Your task to perform on an android device: open app "Reddit" (install if not already installed) and enter user name: "issues@yahoo.com" and password: "belt" Image 0: 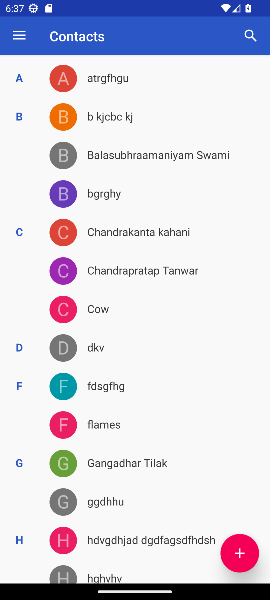
Step 0: press home button
Your task to perform on an android device: open app "Reddit" (install if not already installed) and enter user name: "issues@yahoo.com" and password: "belt" Image 1: 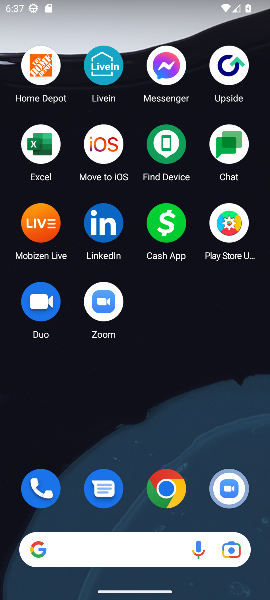
Step 1: drag from (129, 487) to (145, 237)
Your task to perform on an android device: open app "Reddit" (install if not already installed) and enter user name: "issues@yahoo.com" and password: "belt" Image 2: 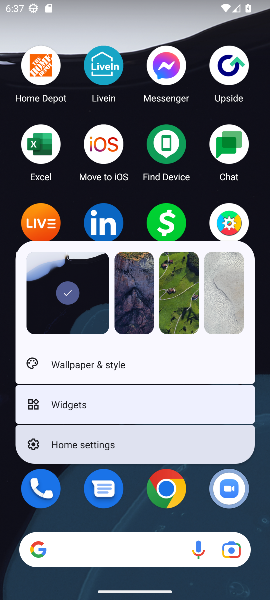
Step 2: click (135, 282)
Your task to perform on an android device: open app "Reddit" (install if not already installed) and enter user name: "issues@yahoo.com" and password: "belt" Image 3: 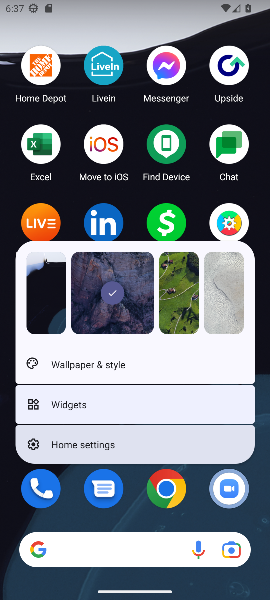
Step 3: press home button
Your task to perform on an android device: open app "Reddit" (install if not already installed) and enter user name: "issues@yahoo.com" and password: "belt" Image 4: 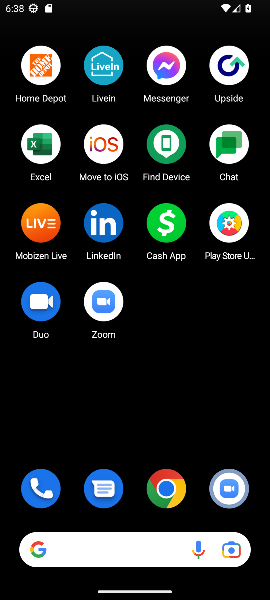
Step 4: click (134, 506)
Your task to perform on an android device: open app "Reddit" (install if not already installed) and enter user name: "issues@yahoo.com" and password: "belt" Image 5: 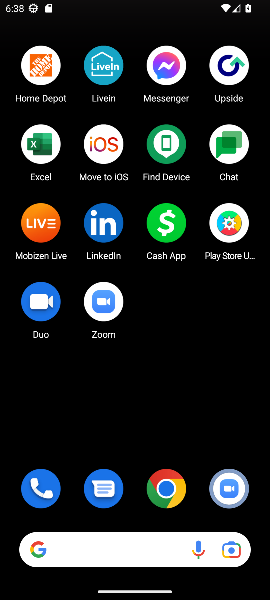
Step 5: click (134, 506)
Your task to perform on an android device: open app "Reddit" (install if not already installed) and enter user name: "issues@yahoo.com" and password: "belt" Image 6: 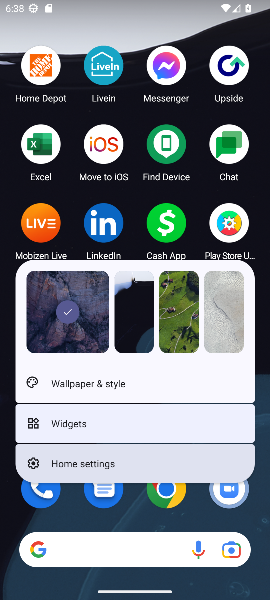
Step 6: click (129, 499)
Your task to perform on an android device: open app "Reddit" (install if not already installed) and enter user name: "issues@yahoo.com" and password: "belt" Image 7: 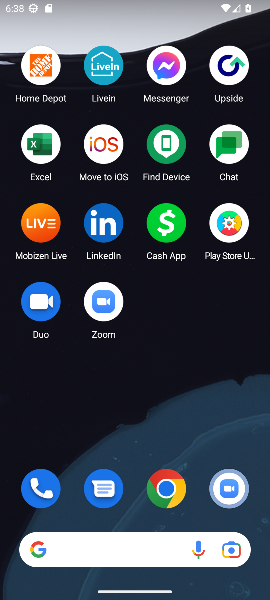
Step 7: drag from (129, 499) to (128, 87)
Your task to perform on an android device: open app "Reddit" (install if not already installed) and enter user name: "issues@yahoo.com" and password: "belt" Image 8: 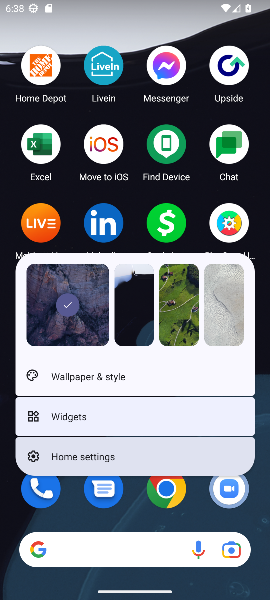
Step 8: click (138, 515)
Your task to perform on an android device: open app "Reddit" (install if not already installed) and enter user name: "issues@yahoo.com" and password: "belt" Image 9: 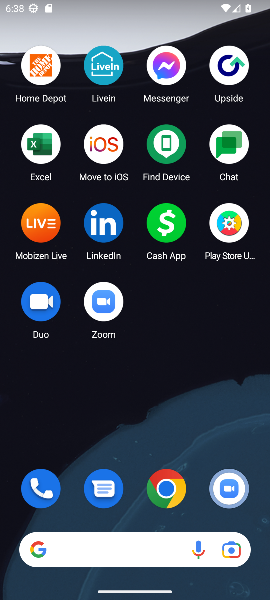
Step 9: drag from (157, 442) to (159, 89)
Your task to perform on an android device: open app "Reddit" (install if not already installed) and enter user name: "issues@yahoo.com" and password: "belt" Image 10: 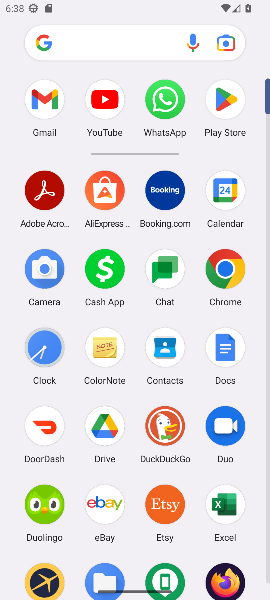
Step 10: click (227, 112)
Your task to perform on an android device: open app "Reddit" (install if not already installed) and enter user name: "issues@yahoo.com" and password: "belt" Image 11: 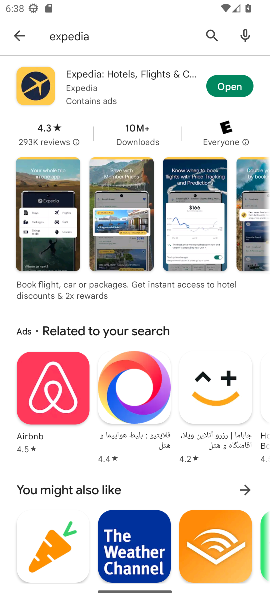
Step 11: click (216, 40)
Your task to perform on an android device: open app "Reddit" (install if not already installed) and enter user name: "issues@yahoo.com" and password: "belt" Image 12: 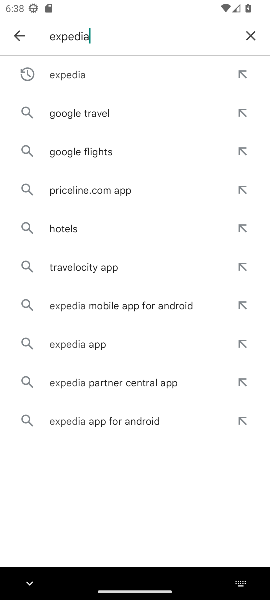
Step 12: click (253, 40)
Your task to perform on an android device: open app "Reddit" (install if not already installed) and enter user name: "issues@yahoo.com" and password: "belt" Image 13: 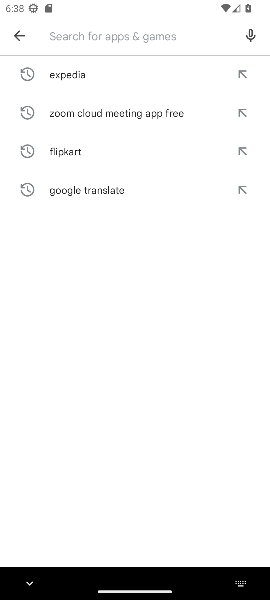
Step 13: type "reddit"
Your task to perform on an android device: open app "Reddit" (install if not already installed) and enter user name: "issues@yahoo.com" and password: "belt" Image 14: 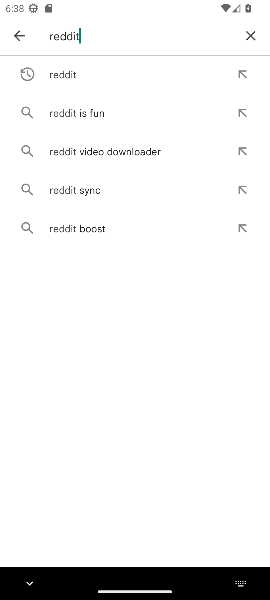
Step 14: click (97, 80)
Your task to perform on an android device: open app "Reddit" (install if not already installed) and enter user name: "issues@yahoo.com" and password: "belt" Image 15: 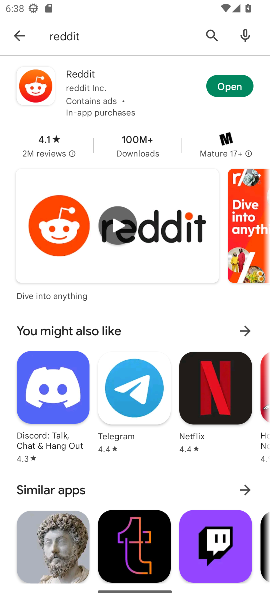
Step 15: click (227, 88)
Your task to perform on an android device: open app "Reddit" (install if not already installed) and enter user name: "issues@yahoo.com" and password: "belt" Image 16: 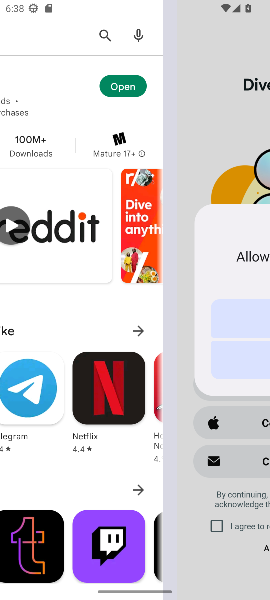
Step 16: task complete